Your task to perform on an android device: Go to network settings Image 0: 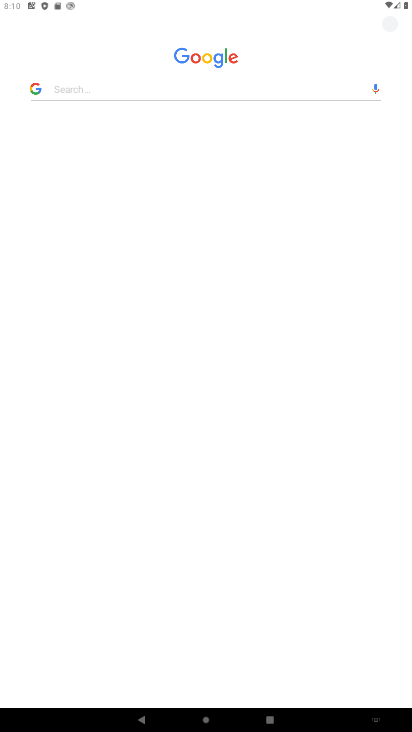
Step 0: press home button
Your task to perform on an android device: Go to network settings Image 1: 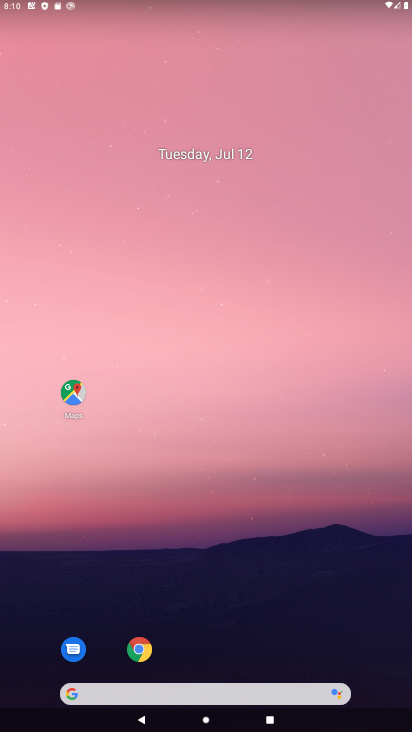
Step 1: drag from (202, 647) to (292, 231)
Your task to perform on an android device: Go to network settings Image 2: 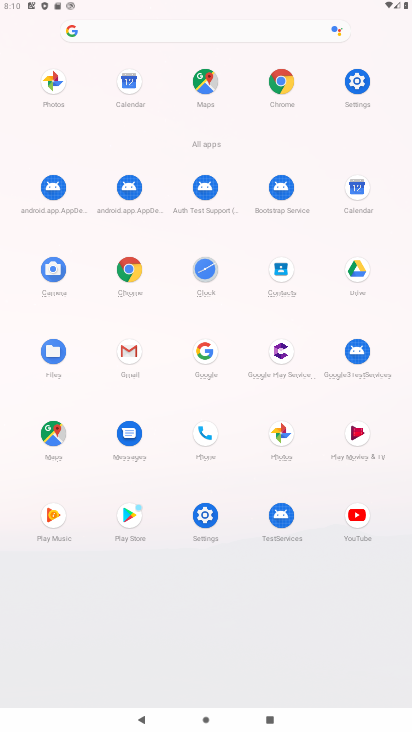
Step 2: click (206, 514)
Your task to perform on an android device: Go to network settings Image 3: 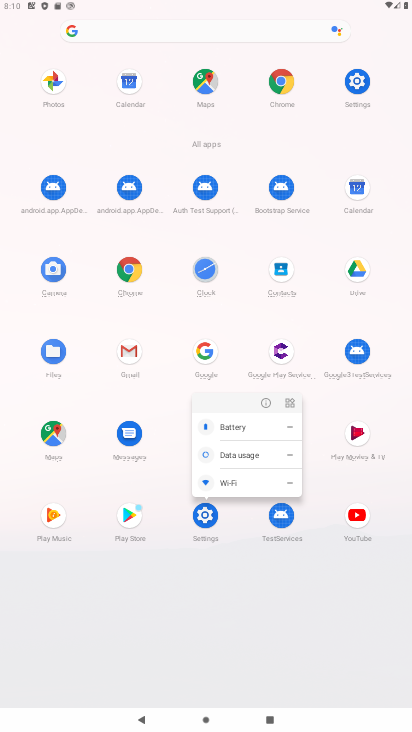
Step 3: click (206, 514)
Your task to perform on an android device: Go to network settings Image 4: 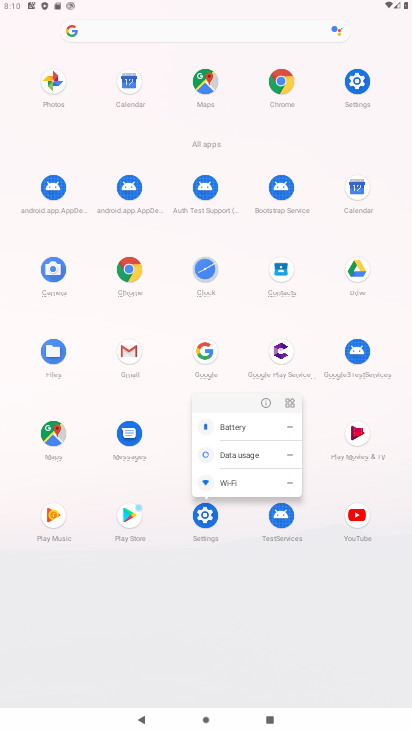
Step 4: click (206, 514)
Your task to perform on an android device: Go to network settings Image 5: 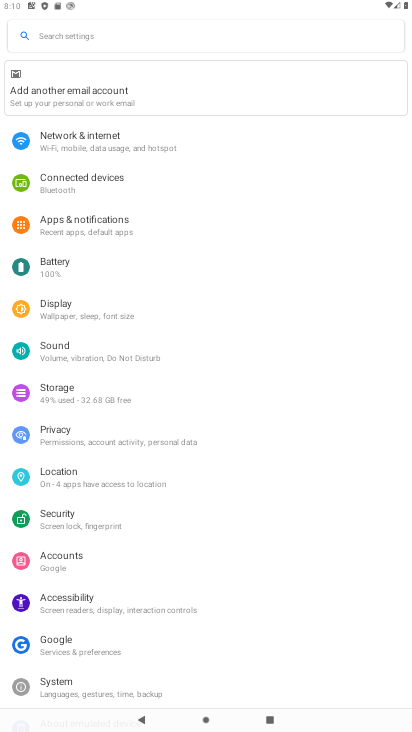
Step 5: click (97, 139)
Your task to perform on an android device: Go to network settings Image 6: 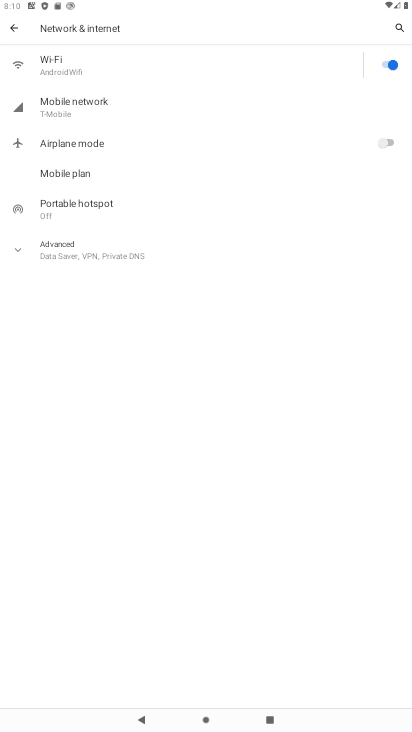
Step 6: click (66, 109)
Your task to perform on an android device: Go to network settings Image 7: 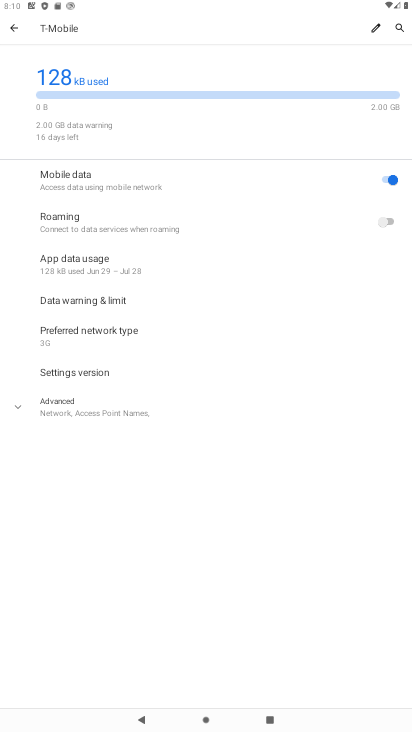
Step 7: task complete